Your task to perform on an android device: Go to Amazon Image 0: 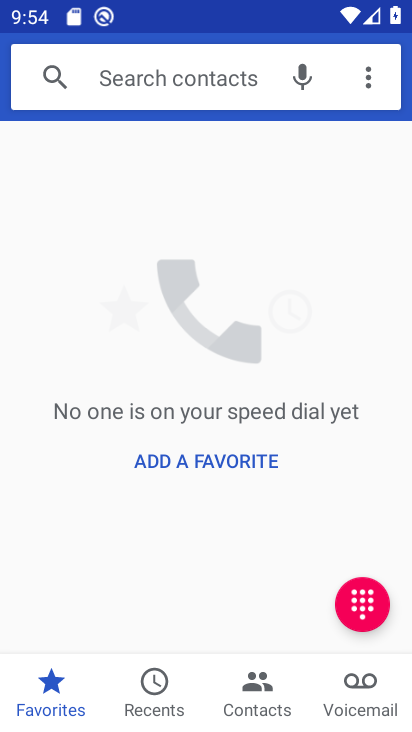
Step 0: press home button
Your task to perform on an android device: Go to Amazon Image 1: 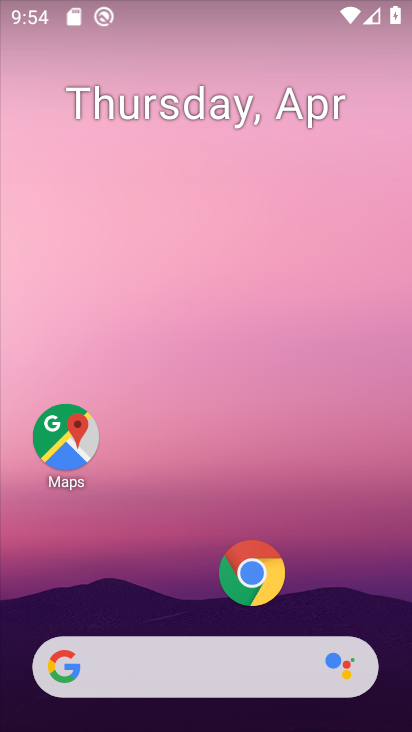
Step 1: click (265, 564)
Your task to perform on an android device: Go to Amazon Image 2: 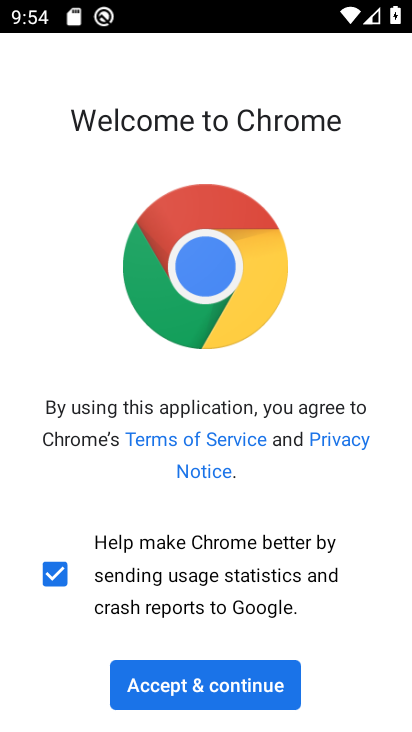
Step 2: click (251, 673)
Your task to perform on an android device: Go to Amazon Image 3: 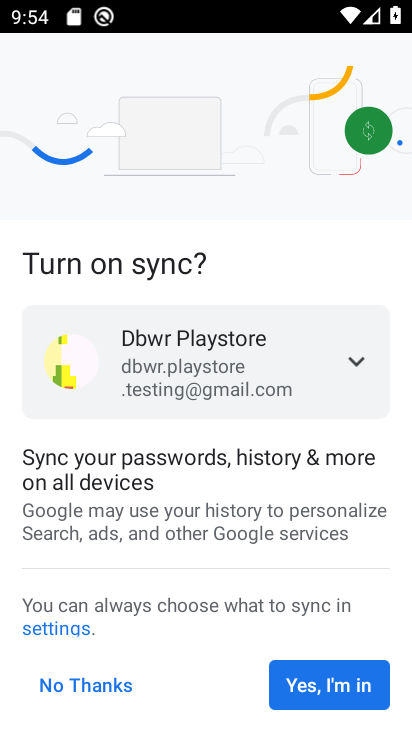
Step 3: click (332, 675)
Your task to perform on an android device: Go to Amazon Image 4: 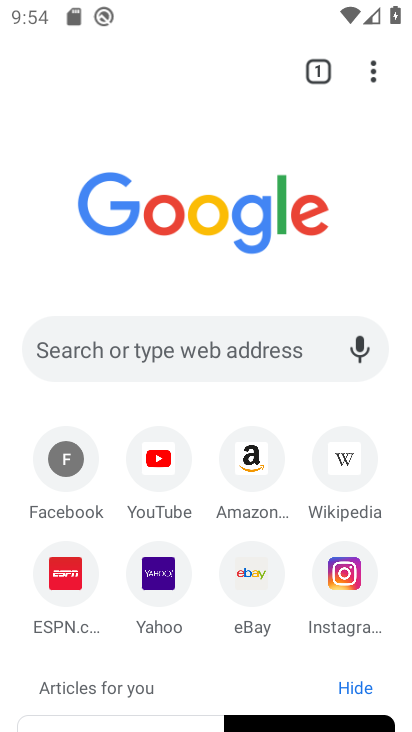
Step 4: click (265, 477)
Your task to perform on an android device: Go to Amazon Image 5: 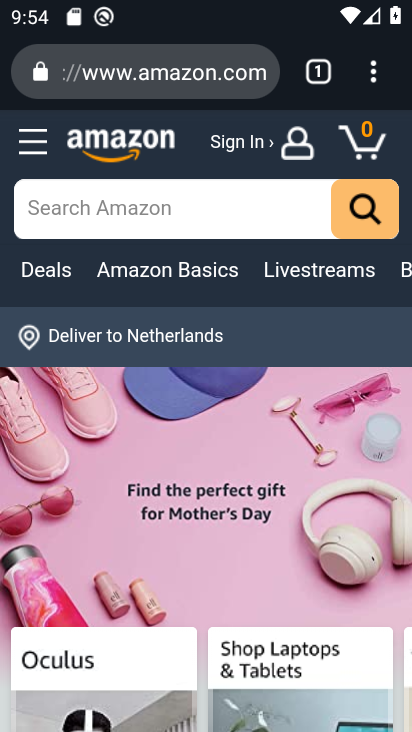
Step 5: task complete